Your task to perform on an android device: Do I have any events tomorrow? Image 0: 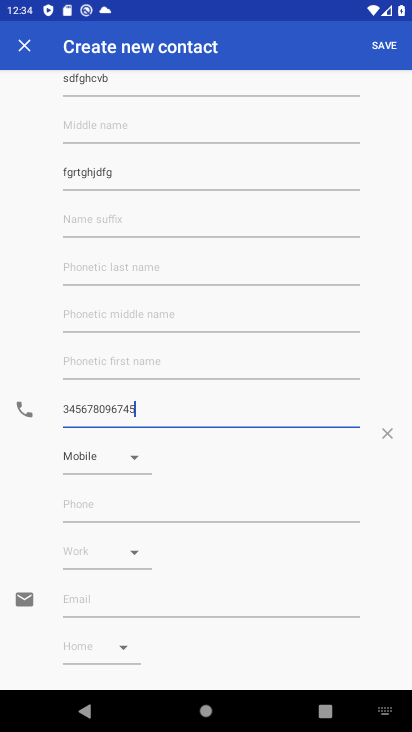
Step 0: press home button
Your task to perform on an android device: Do I have any events tomorrow? Image 1: 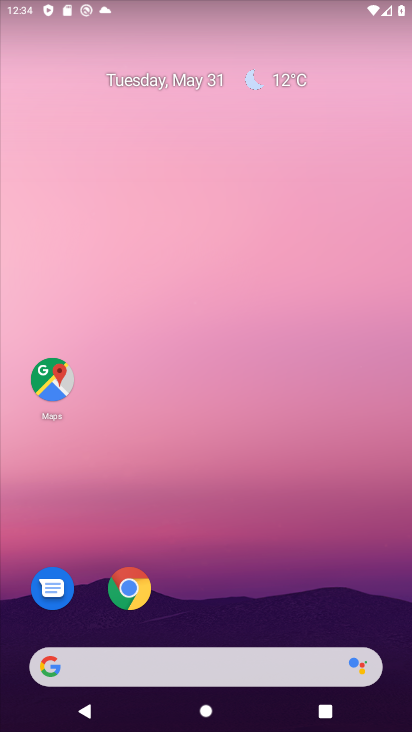
Step 1: drag from (399, 711) to (383, 210)
Your task to perform on an android device: Do I have any events tomorrow? Image 2: 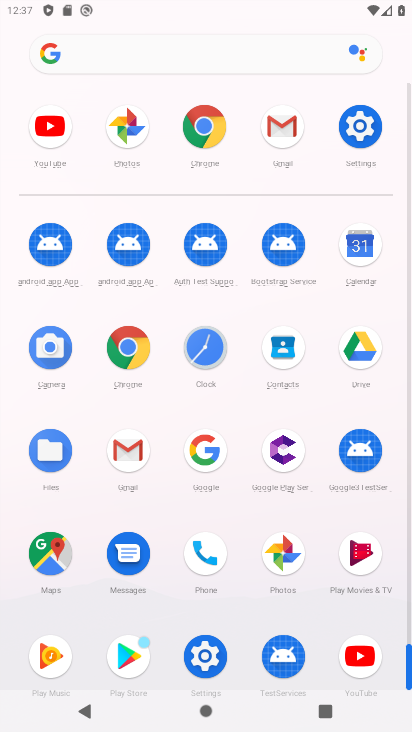
Step 2: click (368, 254)
Your task to perform on an android device: Do I have any events tomorrow? Image 3: 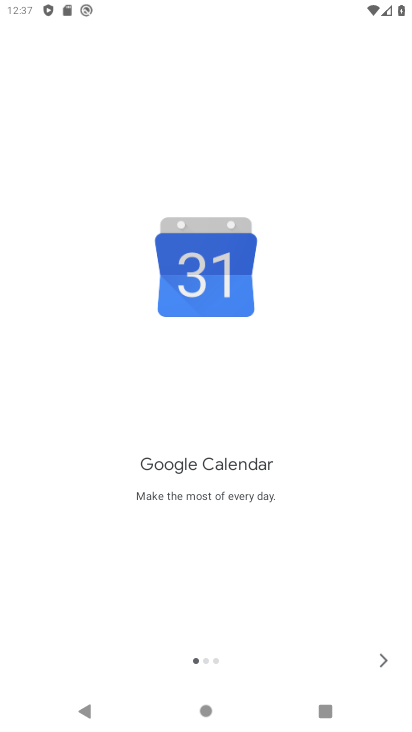
Step 3: click (385, 658)
Your task to perform on an android device: Do I have any events tomorrow? Image 4: 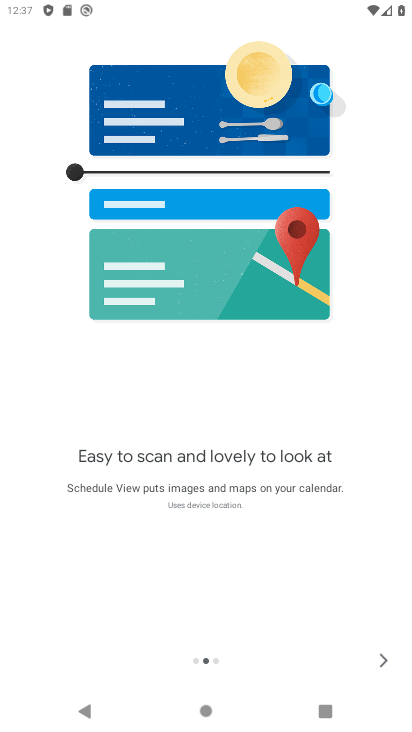
Step 4: click (385, 658)
Your task to perform on an android device: Do I have any events tomorrow? Image 5: 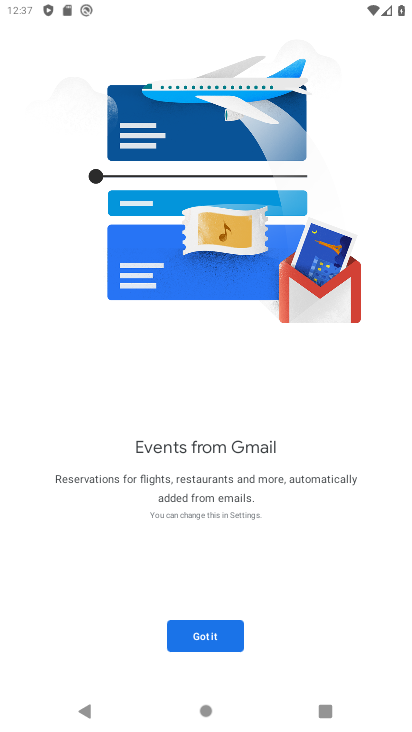
Step 5: click (241, 635)
Your task to perform on an android device: Do I have any events tomorrow? Image 6: 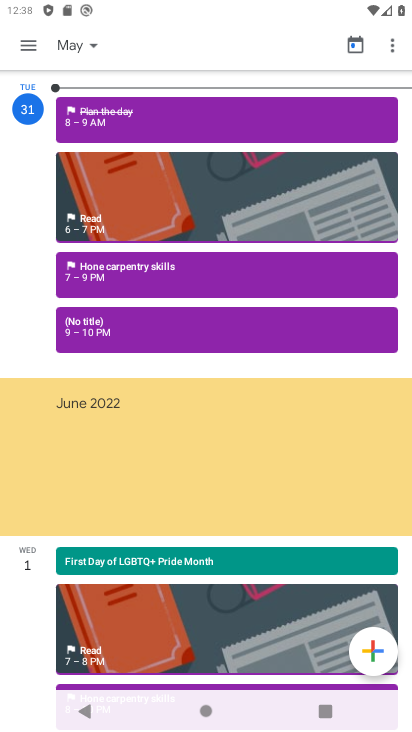
Step 6: click (84, 46)
Your task to perform on an android device: Do I have any events tomorrow? Image 7: 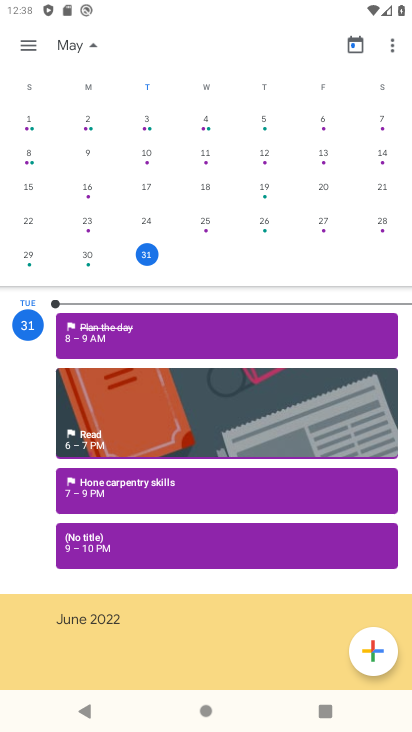
Step 7: drag from (355, 172) to (123, 146)
Your task to perform on an android device: Do I have any events tomorrow? Image 8: 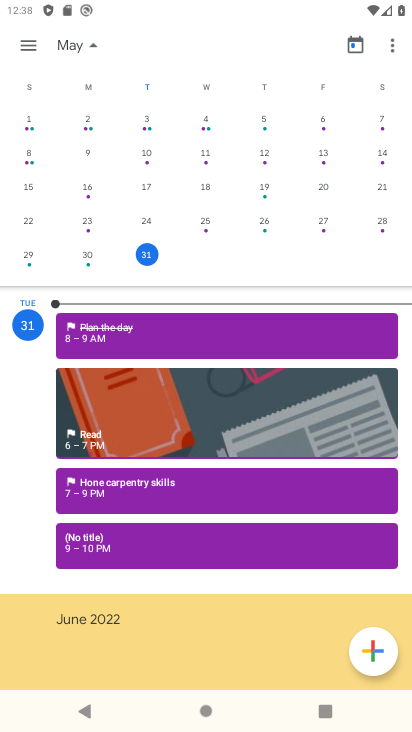
Step 8: drag from (397, 168) to (127, 148)
Your task to perform on an android device: Do I have any events tomorrow? Image 9: 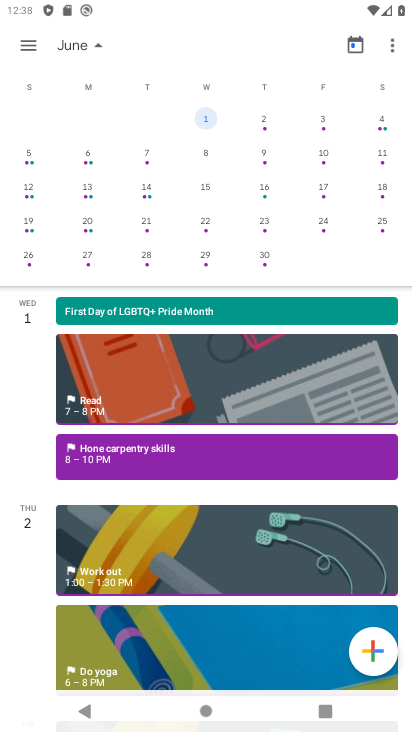
Step 9: click (201, 115)
Your task to perform on an android device: Do I have any events tomorrow? Image 10: 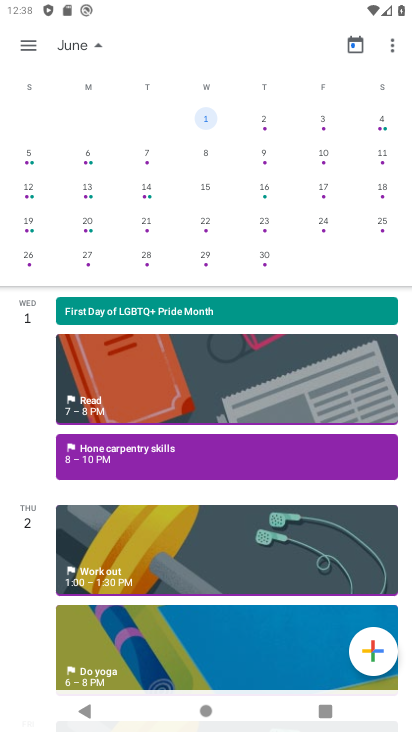
Step 10: click (32, 47)
Your task to perform on an android device: Do I have any events tomorrow? Image 11: 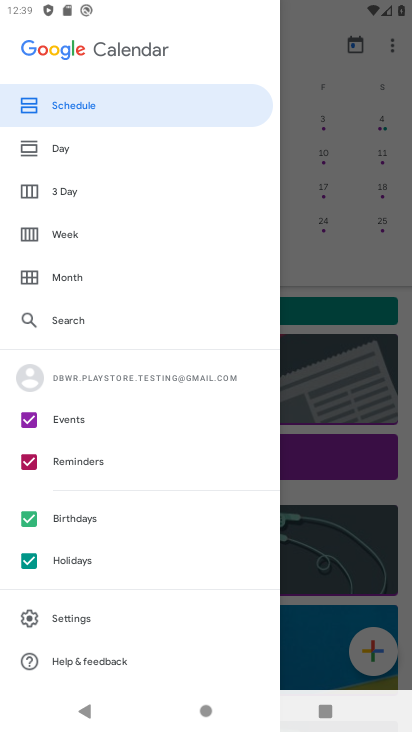
Step 11: click (64, 145)
Your task to perform on an android device: Do I have any events tomorrow? Image 12: 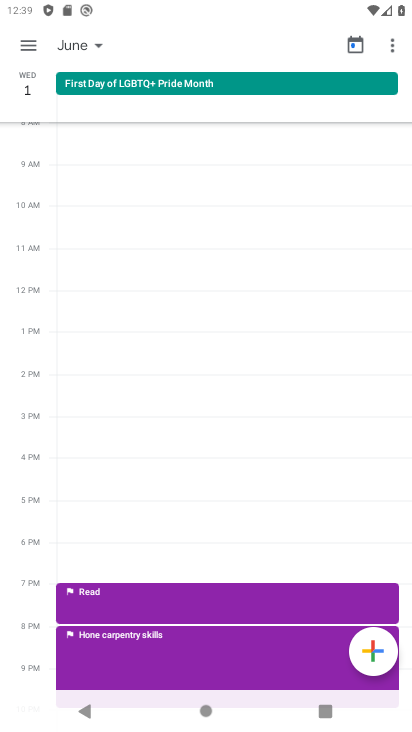
Step 12: task complete